Your task to perform on an android device: toggle location history Image 0: 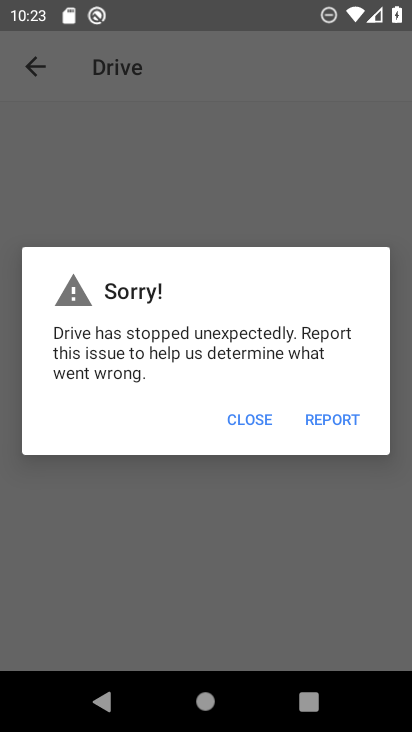
Step 0: press home button
Your task to perform on an android device: toggle location history Image 1: 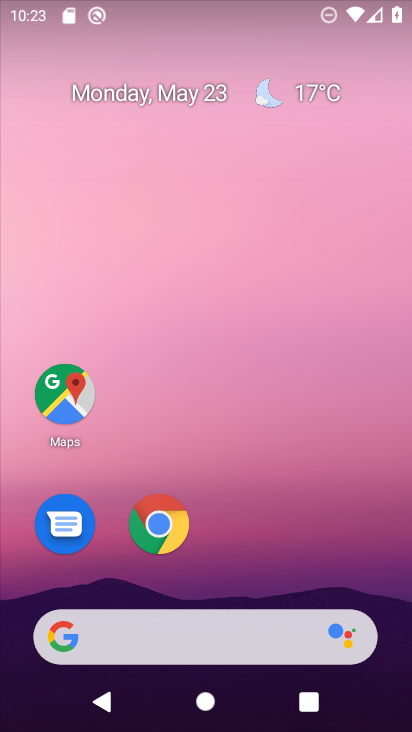
Step 1: drag from (216, 568) to (216, 202)
Your task to perform on an android device: toggle location history Image 2: 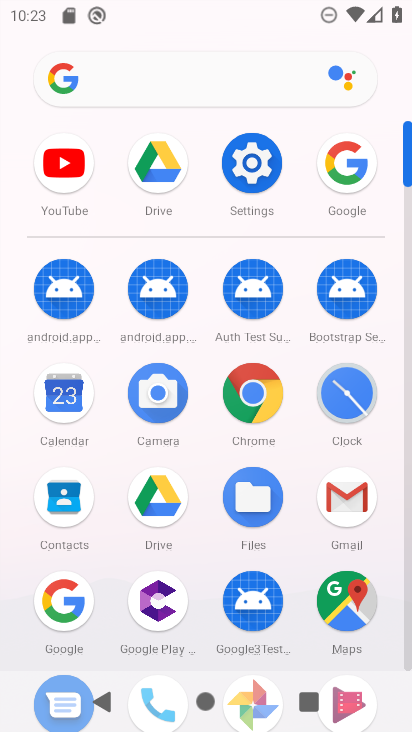
Step 2: click (241, 187)
Your task to perform on an android device: toggle location history Image 3: 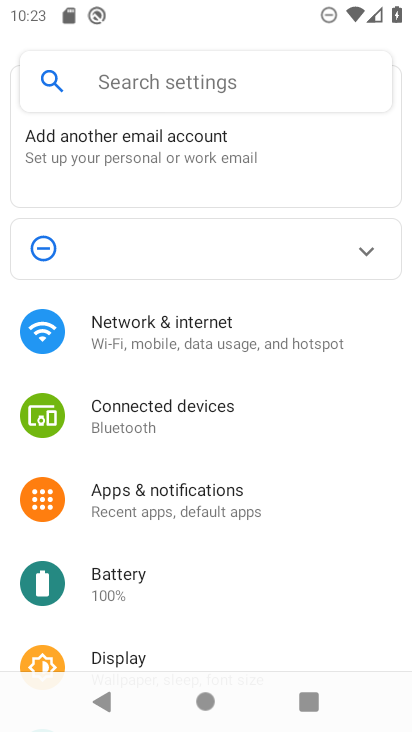
Step 3: drag from (267, 556) to (287, 281)
Your task to perform on an android device: toggle location history Image 4: 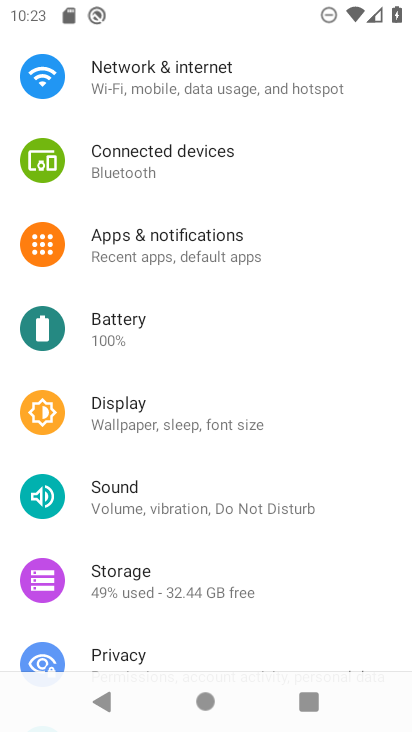
Step 4: drag from (235, 534) to (232, 286)
Your task to perform on an android device: toggle location history Image 5: 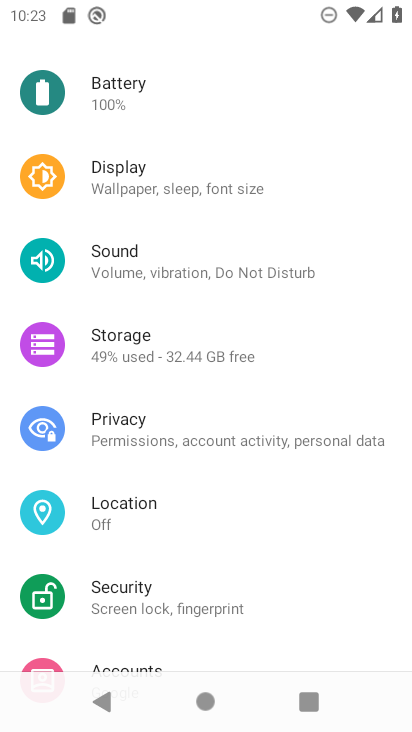
Step 5: click (199, 499)
Your task to perform on an android device: toggle location history Image 6: 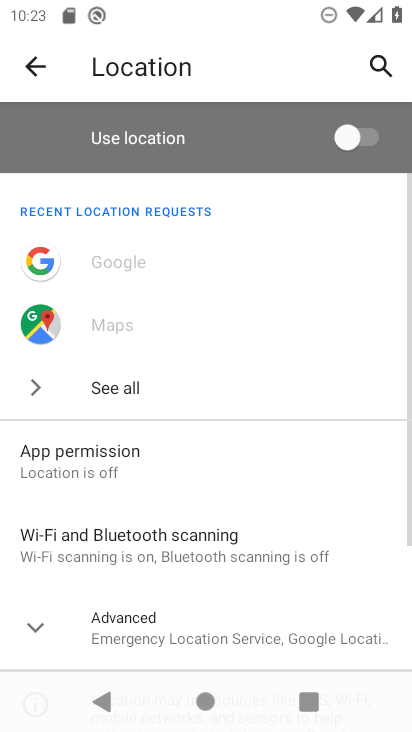
Step 6: drag from (219, 571) to (236, 389)
Your task to perform on an android device: toggle location history Image 7: 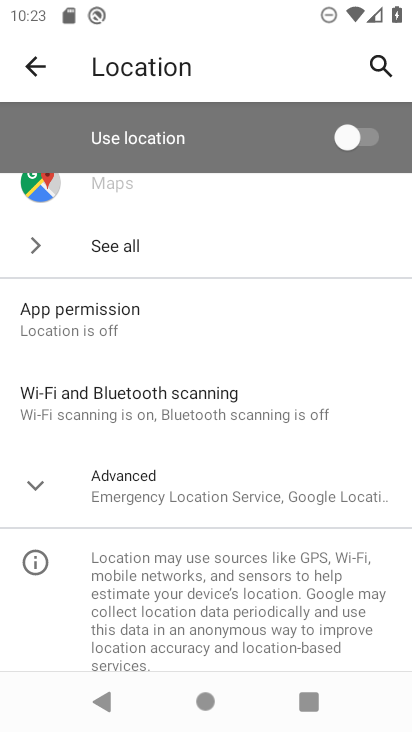
Step 7: click (207, 481)
Your task to perform on an android device: toggle location history Image 8: 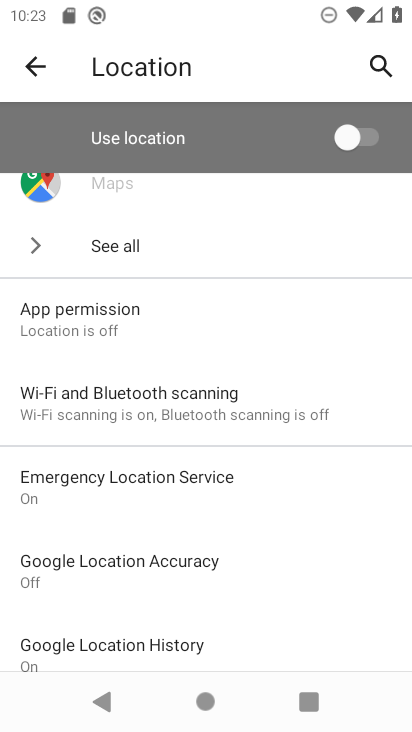
Step 8: click (202, 639)
Your task to perform on an android device: toggle location history Image 9: 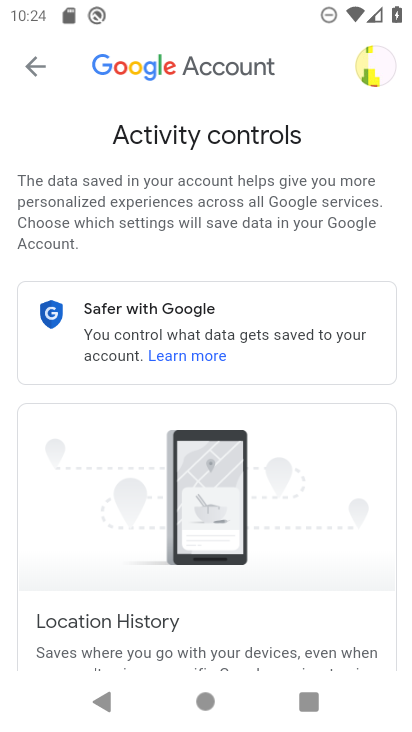
Step 9: drag from (233, 572) to (224, 159)
Your task to perform on an android device: toggle location history Image 10: 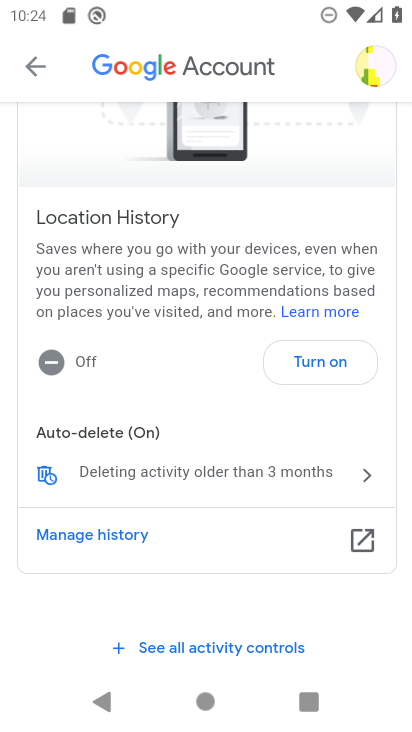
Step 10: click (296, 355)
Your task to perform on an android device: toggle location history Image 11: 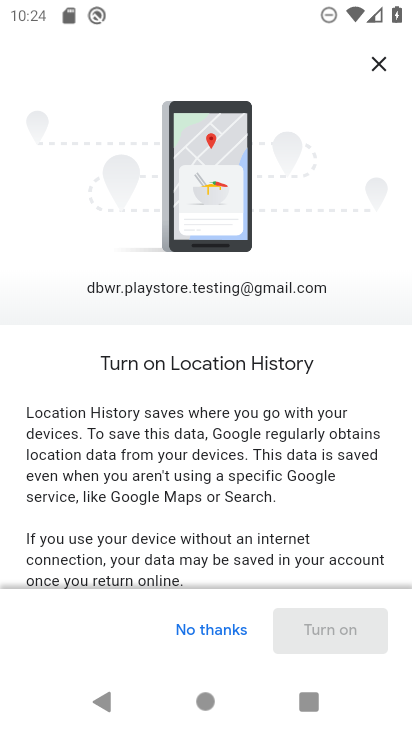
Step 11: drag from (280, 523) to (271, 88)
Your task to perform on an android device: toggle location history Image 12: 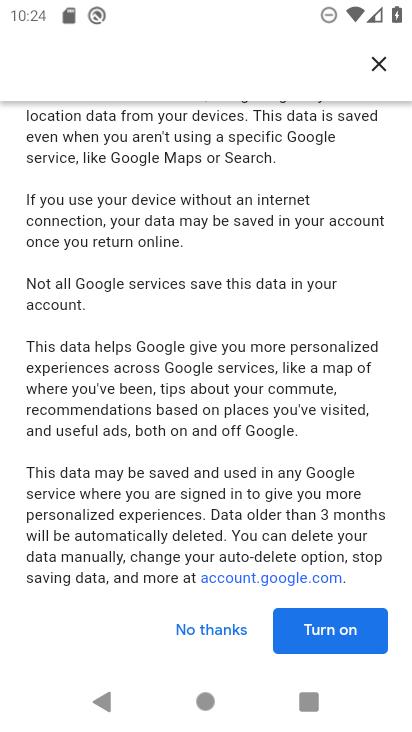
Step 12: click (322, 614)
Your task to perform on an android device: toggle location history Image 13: 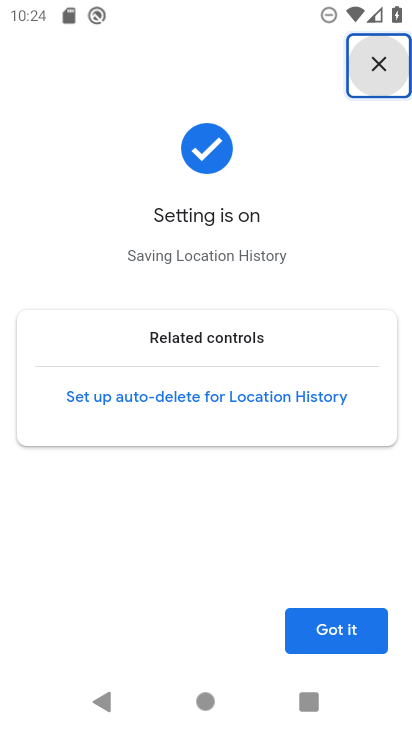
Step 13: task complete